Your task to perform on an android device: toggle sleep mode Image 0: 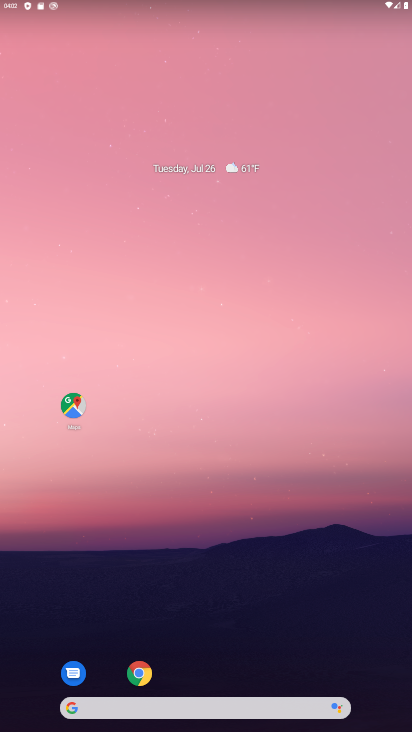
Step 0: press home button
Your task to perform on an android device: toggle sleep mode Image 1: 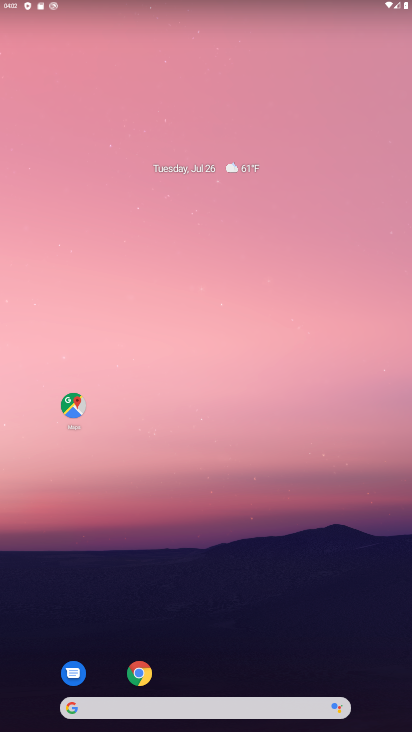
Step 1: drag from (223, 671) to (270, 49)
Your task to perform on an android device: toggle sleep mode Image 2: 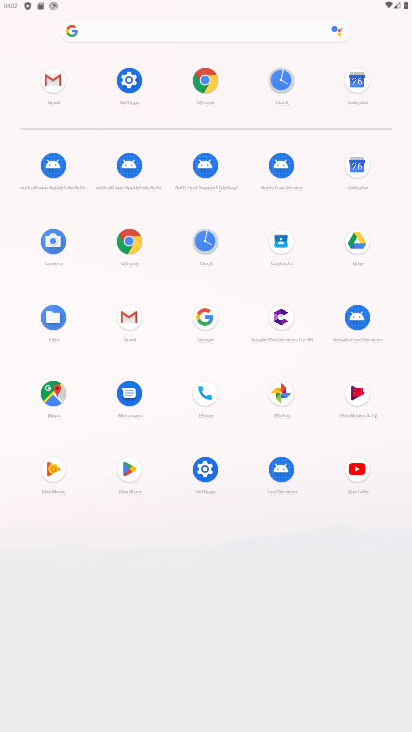
Step 2: click (207, 463)
Your task to perform on an android device: toggle sleep mode Image 3: 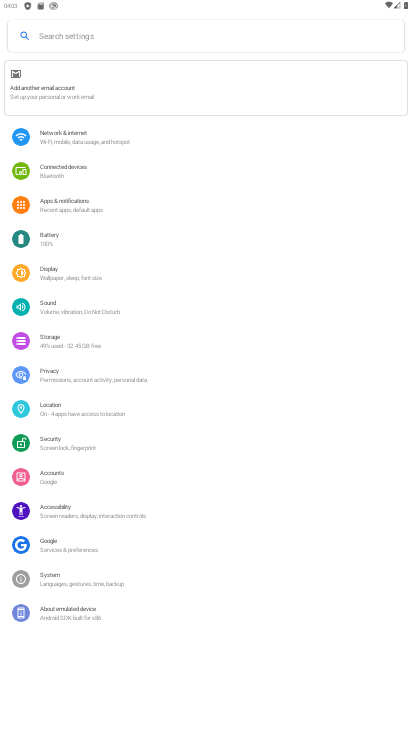
Step 3: click (61, 266)
Your task to perform on an android device: toggle sleep mode Image 4: 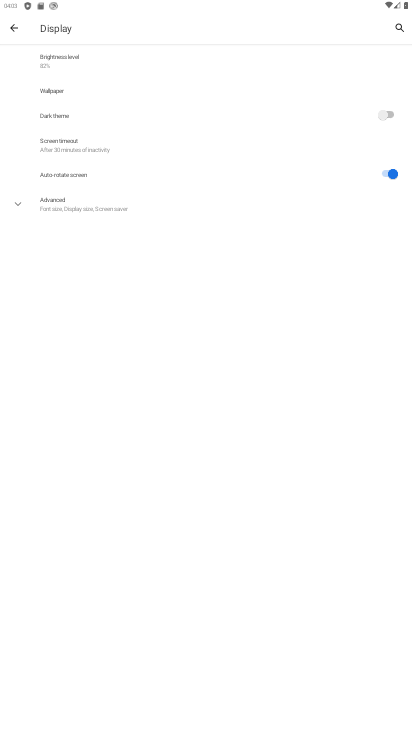
Step 4: click (15, 196)
Your task to perform on an android device: toggle sleep mode Image 5: 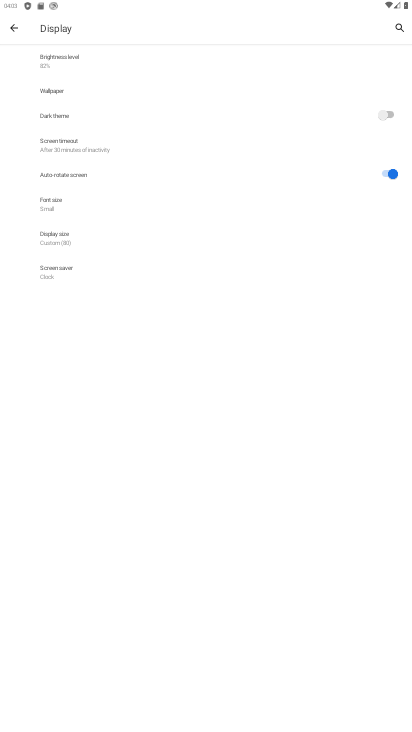
Step 5: task complete